Your task to perform on an android device: remove spam from my inbox in the gmail app Image 0: 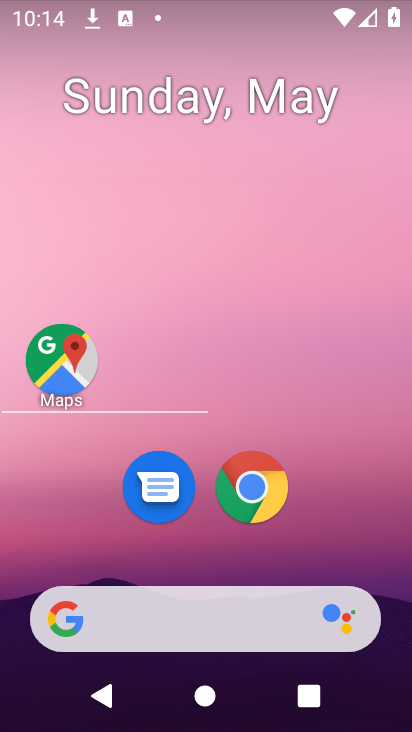
Step 0: click (223, 255)
Your task to perform on an android device: remove spam from my inbox in the gmail app Image 1: 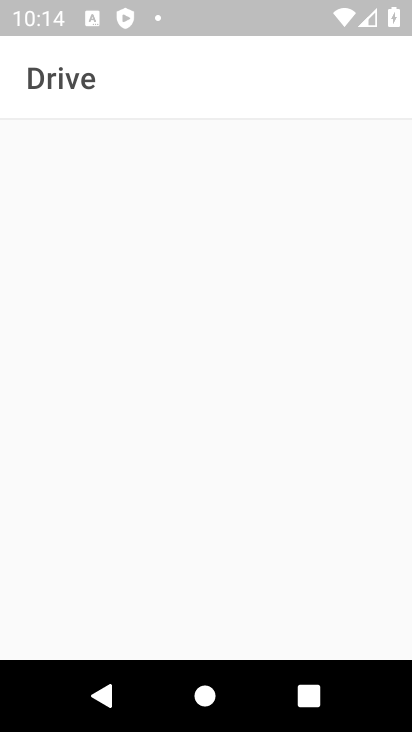
Step 1: press home button
Your task to perform on an android device: remove spam from my inbox in the gmail app Image 2: 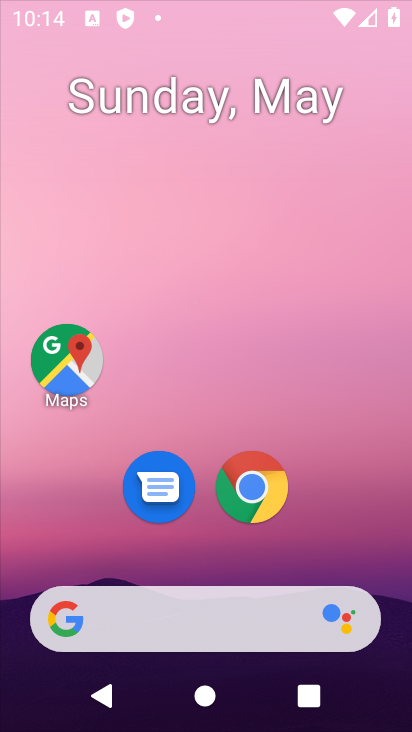
Step 2: drag from (171, 612) to (196, 198)
Your task to perform on an android device: remove spam from my inbox in the gmail app Image 3: 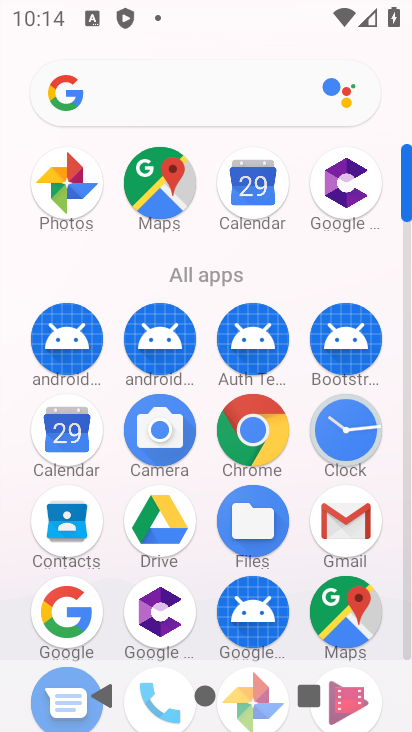
Step 3: click (344, 544)
Your task to perform on an android device: remove spam from my inbox in the gmail app Image 4: 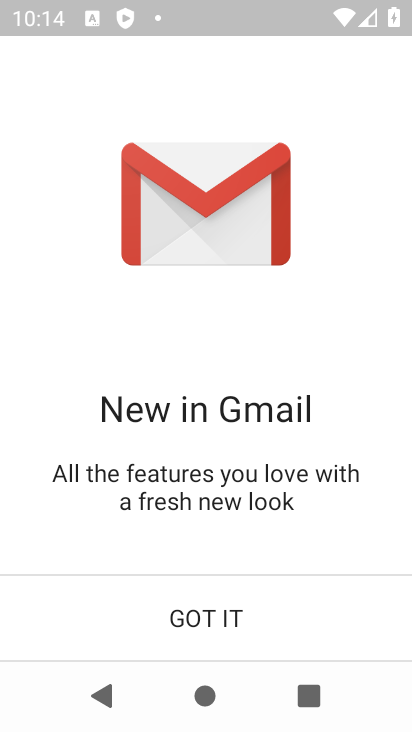
Step 4: click (293, 628)
Your task to perform on an android device: remove spam from my inbox in the gmail app Image 5: 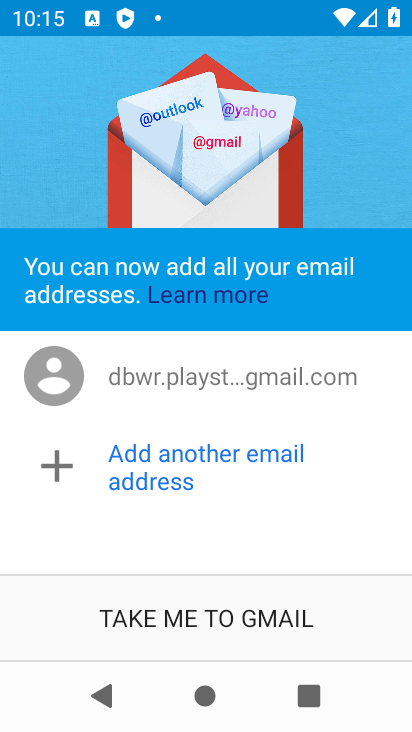
Step 5: click (293, 628)
Your task to perform on an android device: remove spam from my inbox in the gmail app Image 6: 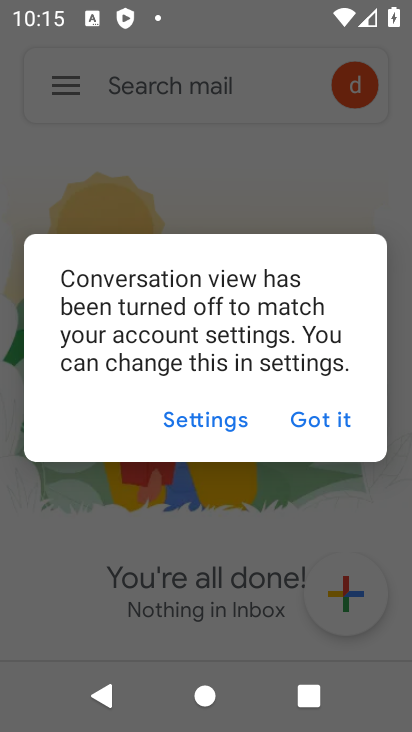
Step 6: click (307, 438)
Your task to perform on an android device: remove spam from my inbox in the gmail app Image 7: 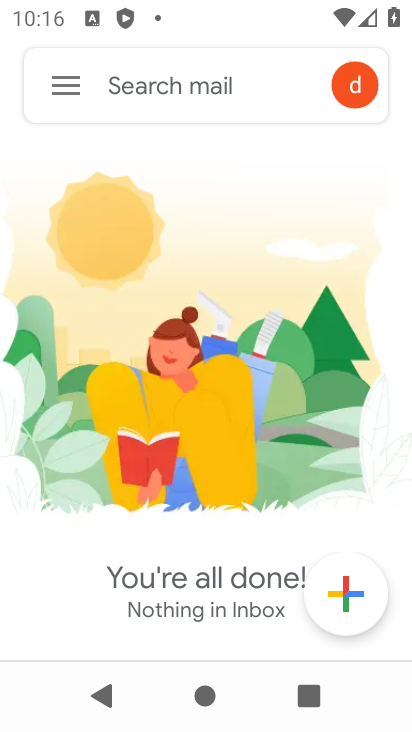
Step 7: click (61, 88)
Your task to perform on an android device: remove spam from my inbox in the gmail app Image 8: 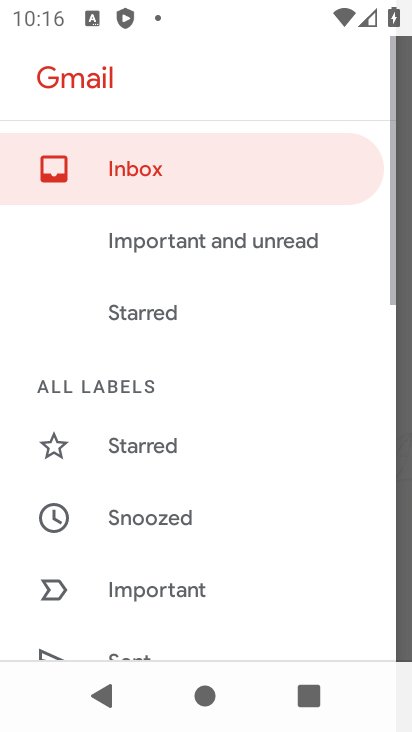
Step 8: drag from (163, 557) to (242, 109)
Your task to perform on an android device: remove spam from my inbox in the gmail app Image 9: 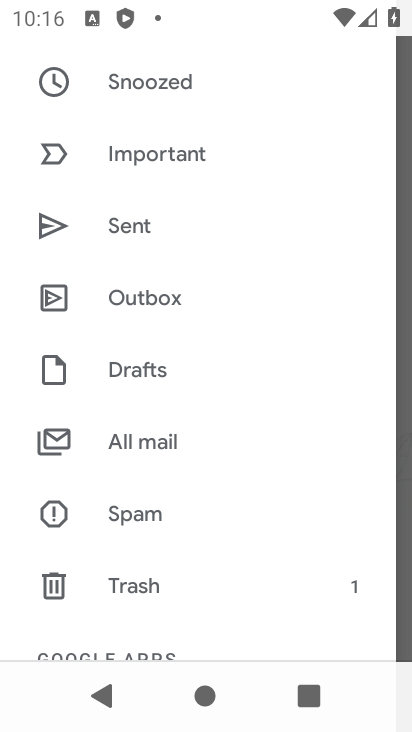
Step 9: click (146, 523)
Your task to perform on an android device: remove spam from my inbox in the gmail app Image 10: 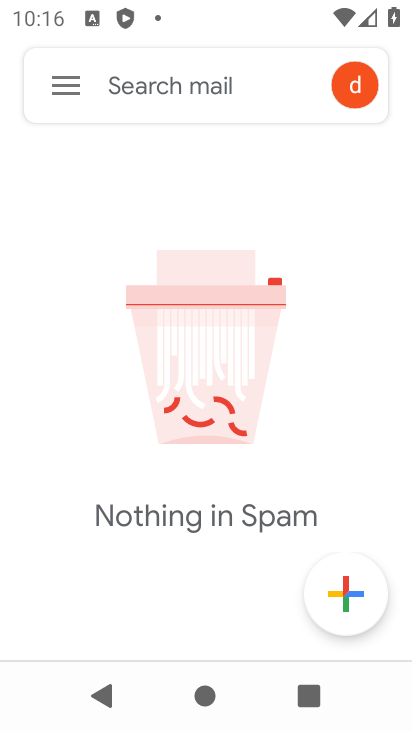
Step 10: task complete